Your task to perform on an android device: change your default location settings in chrome Image 0: 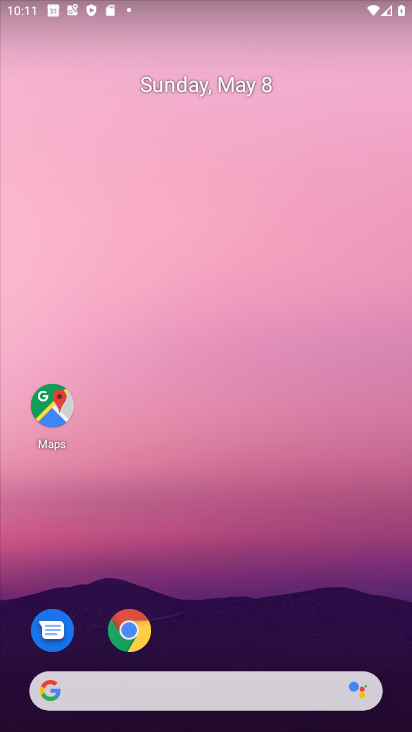
Step 0: click (129, 628)
Your task to perform on an android device: change your default location settings in chrome Image 1: 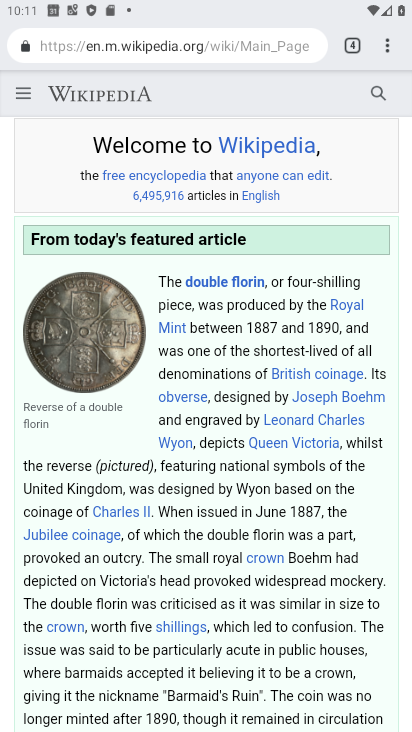
Step 1: click (389, 48)
Your task to perform on an android device: change your default location settings in chrome Image 2: 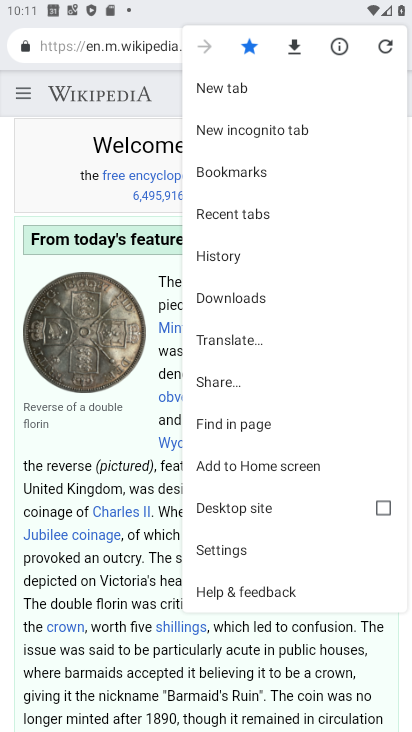
Step 2: click (222, 546)
Your task to perform on an android device: change your default location settings in chrome Image 3: 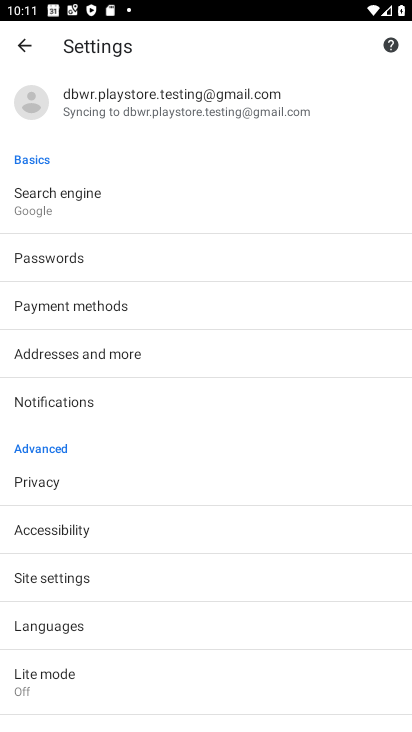
Step 3: click (54, 200)
Your task to perform on an android device: change your default location settings in chrome Image 4: 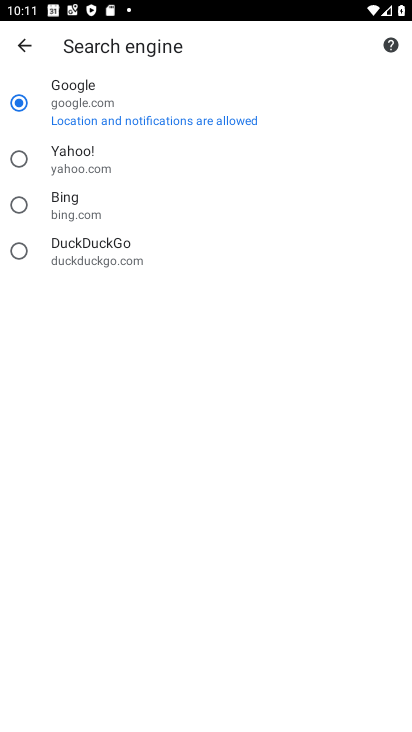
Step 4: click (19, 158)
Your task to perform on an android device: change your default location settings in chrome Image 5: 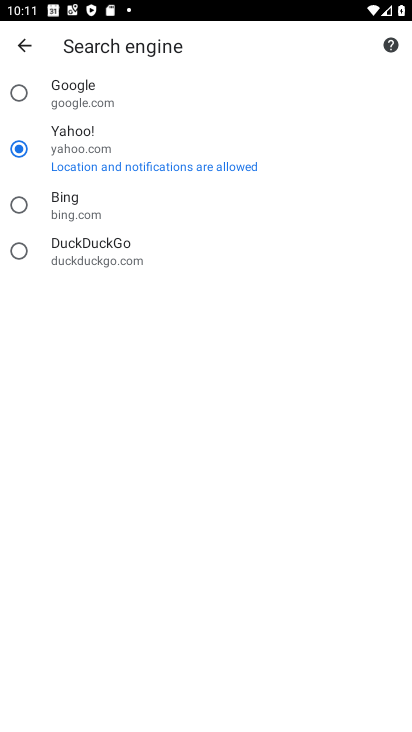
Step 5: task complete